Your task to perform on an android device: Open the calendar and show me this week's events? Image 0: 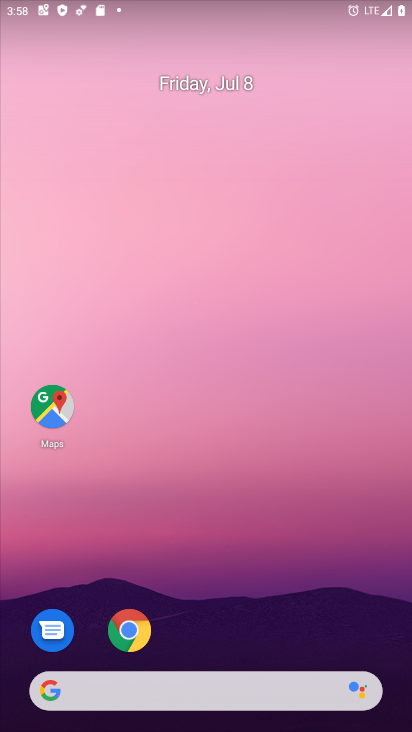
Step 0: drag from (198, 625) to (205, 183)
Your task to perform on an android device: Open the calendar and show me this week's events? Image 1: 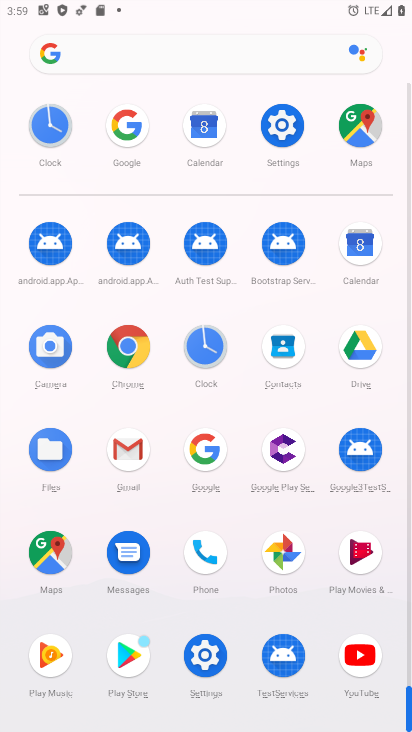
Step 1: click (361, 248)
Your task to perform on an android device: Open the calendar and show me this week's events? Image 2: 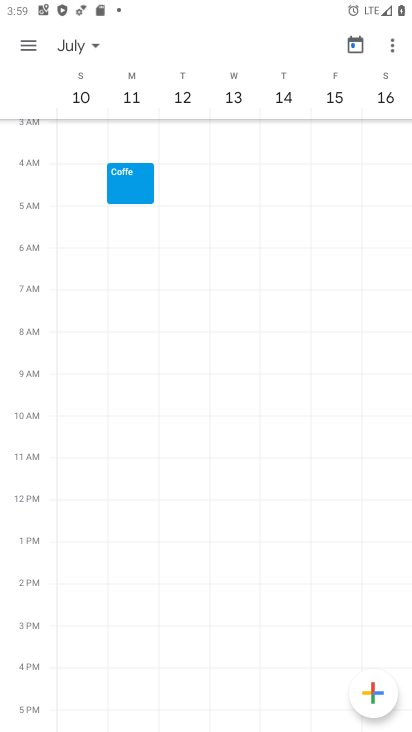
Step 2: click (355, 40)
Your task to perform on an android device: Open the calendar and show me this week's events? Image 3: 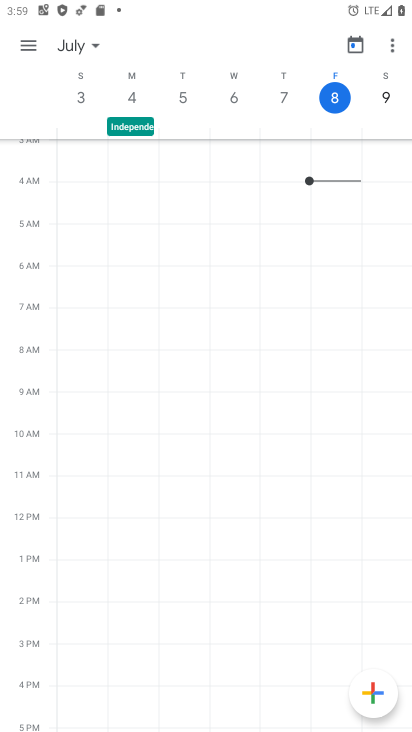
Step 3: click (94, 44)
Your task to perform on an android device: Open the calendar and show me this week's events? Image 4: 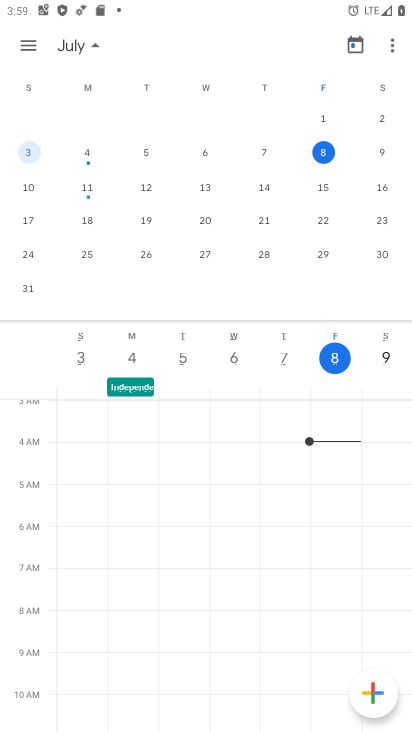
Step 4: click (91, 157)
Your task to perform on an android device: Open the calendar and show me this week's events? Image 5: 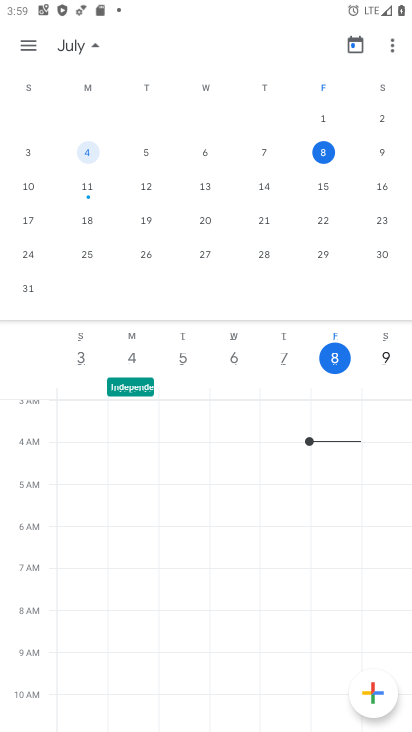
Step 5: click (87, 45)
Your task to perform on an android device: Open the calendar and show me this week's events? Image 6: 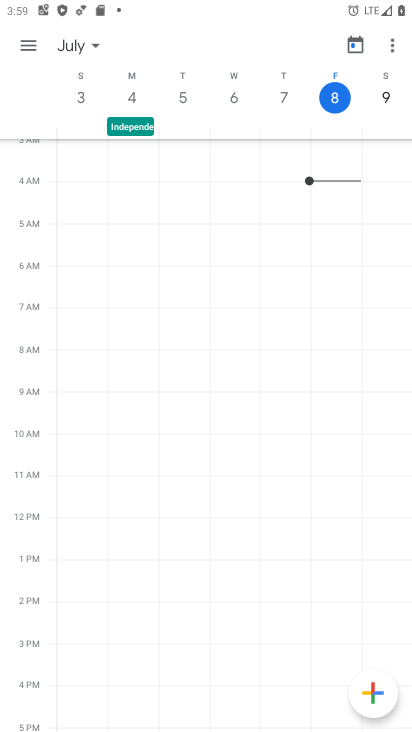
Step 6: click (30, 41)
Your task to perform on an android device: Open the calendar and show me this week's events? Image 7: 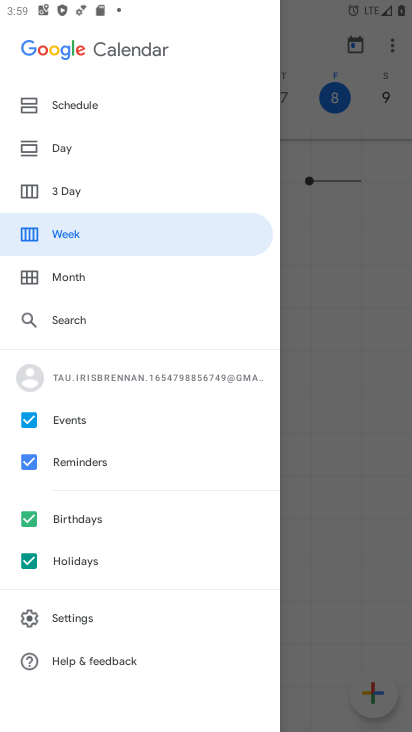
Step 7: click (92, 219)
Your task to perform on an android device: Open the calendar and show me this week's events? Image 8: 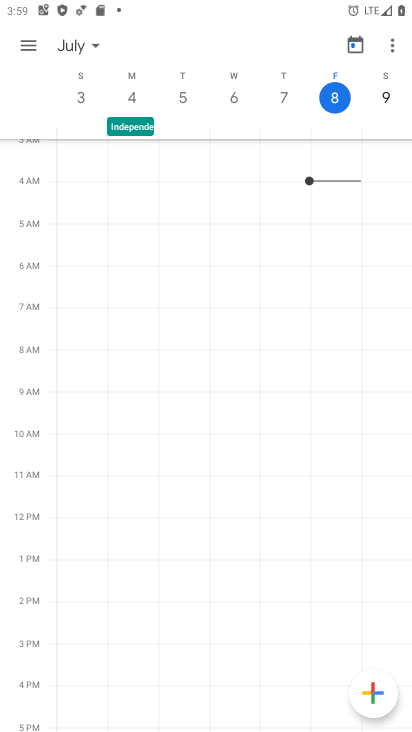
Step 8: task complete